Your task to perform on an android device: delete browsing data in the chrome app Image 0: 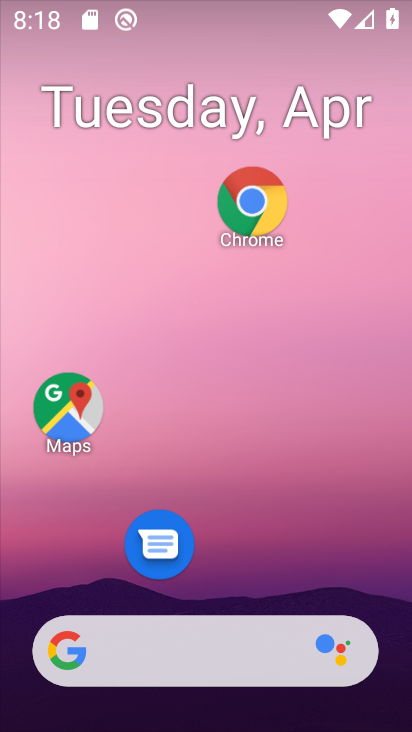
Step 0: drag from (225, 533) to (270, 111)
Your task to perform on an android device: delete browsing data in the chrome app Image 1: 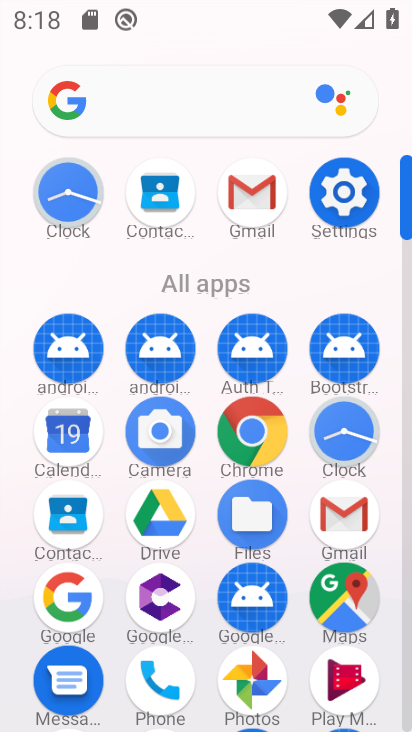
Step 1: click (256, 431)
Your task to perform on an android device: delete browsing data in the chrome app Image 2: 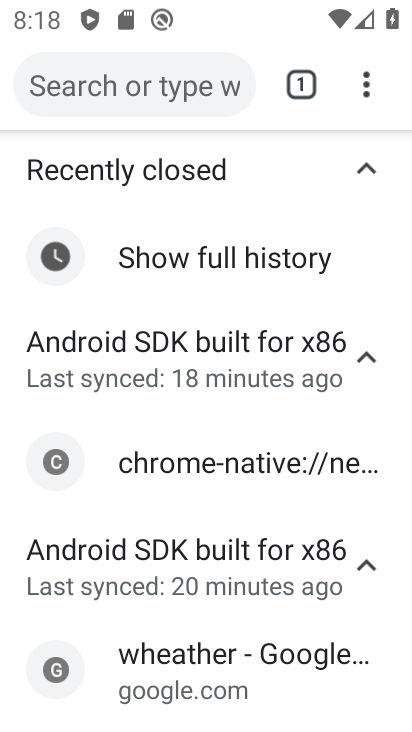
Step 2: click (375, 78)
Your task to perform on an android device: delete browsing data in the chrome app Image 3: 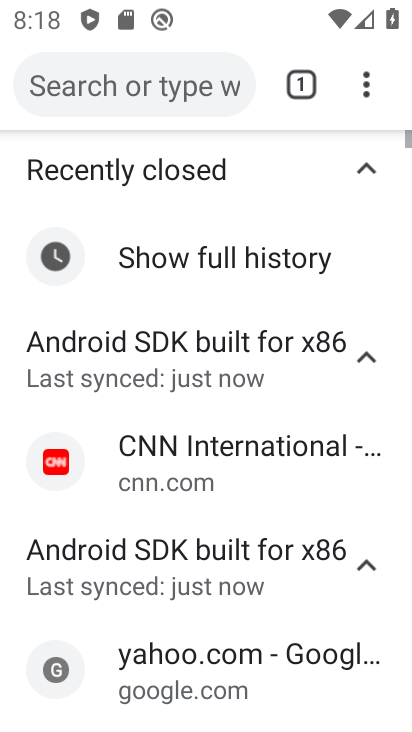
Step 3: click (195, 250)
Your task to perform on an android device: delete browsing data in the chrome app Image 4: 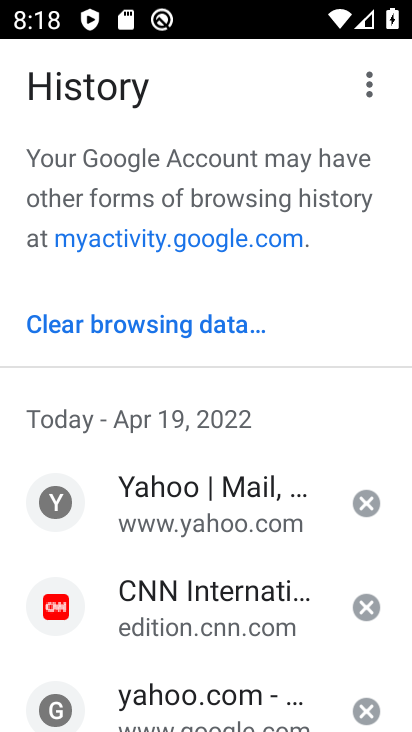
Step 4: click (161, 327)
Your task to perform on an android device: delete browsing data in the chrome app Image 5: 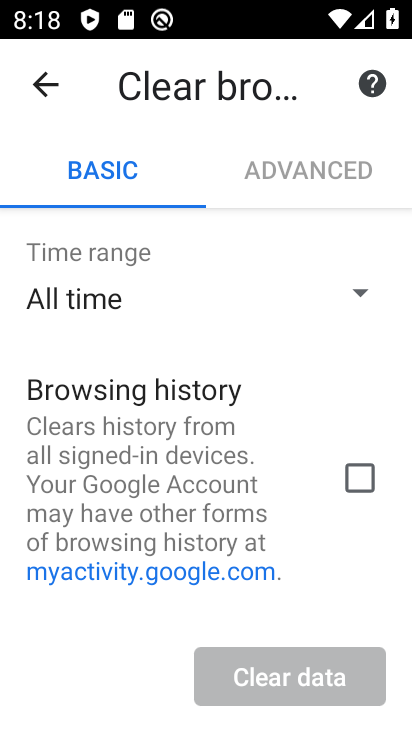
Step 5: drag from (223, 517) to (198, 578)
Your task to perform on an android device: delete browsing data in the chrome app Image 6: 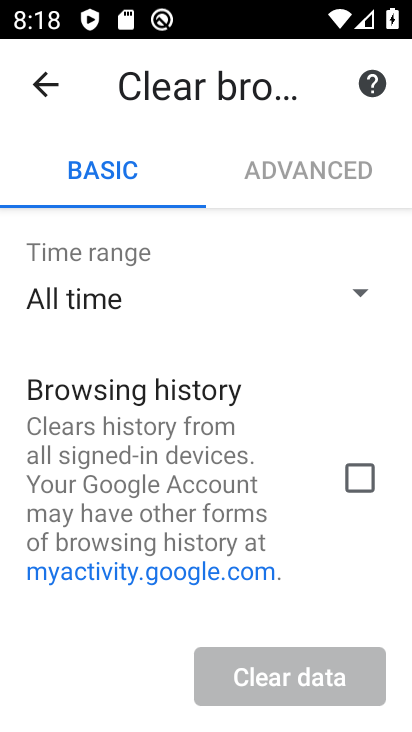
Step 6: click (355, 476)
Your task to perform on an android device: delete browsing data in the chrome app Image 7: 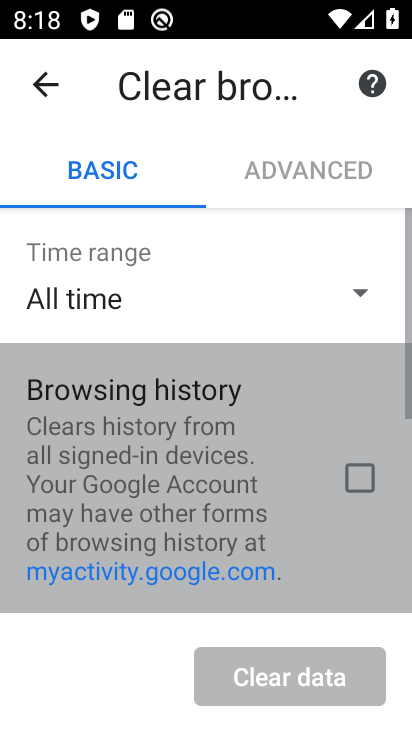
Step 7: drag from (162, 530) to (208, 208)
Your task to perform on an android device: delete browsing data in the chrome app Image 8: 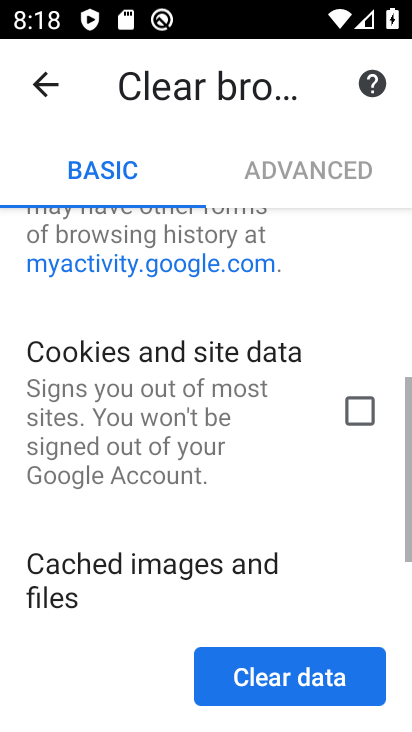
Step 8: click (238, 666)
Your task to perform on an android device: delete browsing data in the chrome app Image 9: 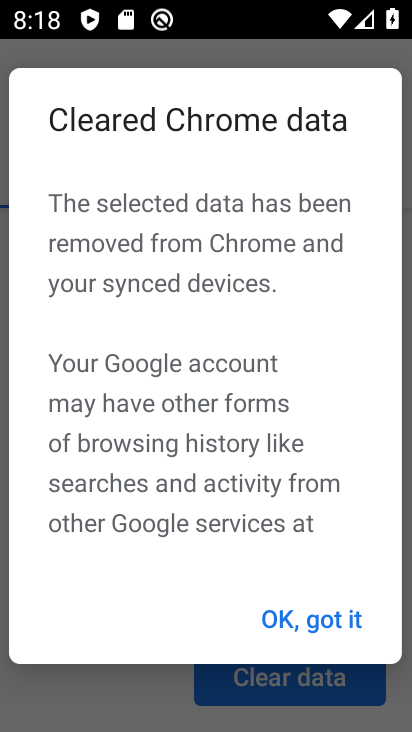
Step 9: click (339, 621)
Your task to perform on an android device: delete browsing data in the chrome app Image 10: 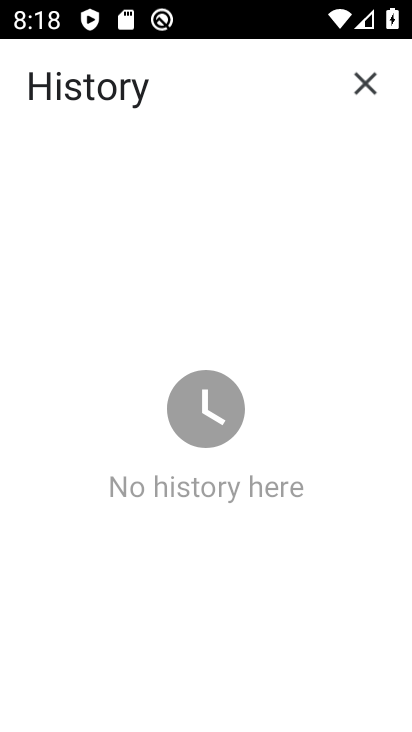
Step 10: task complete